Your task to perform on an android device: Open my contact list Image 0: 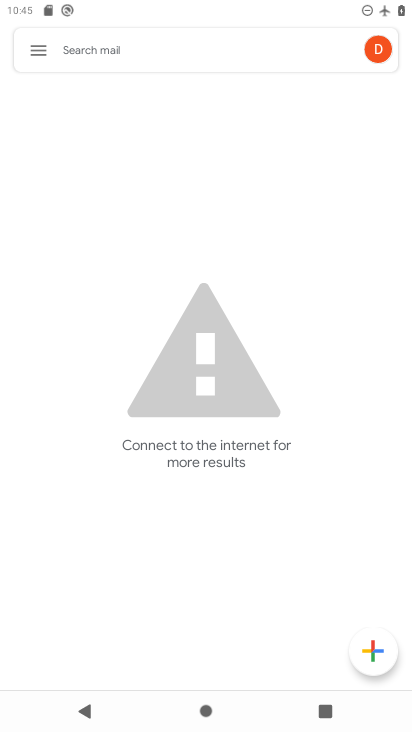
Step 0: press home button
Your task to perform on an android device: Open my contact list Image 1: 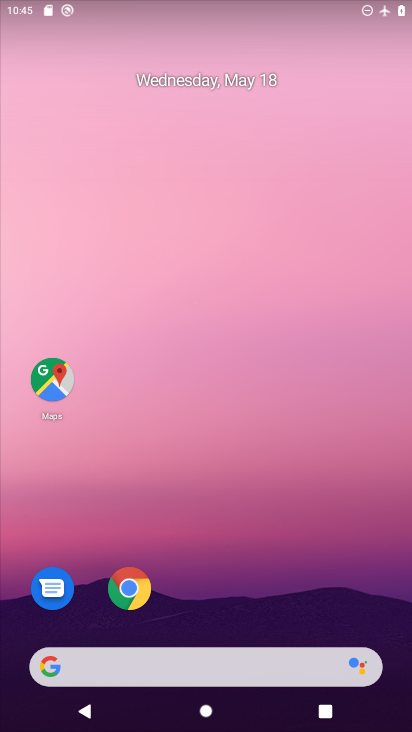
Step 1: drag from (340, 593) to (277, 13)
Your task to perform on an android device: Open my contact list Image 2: 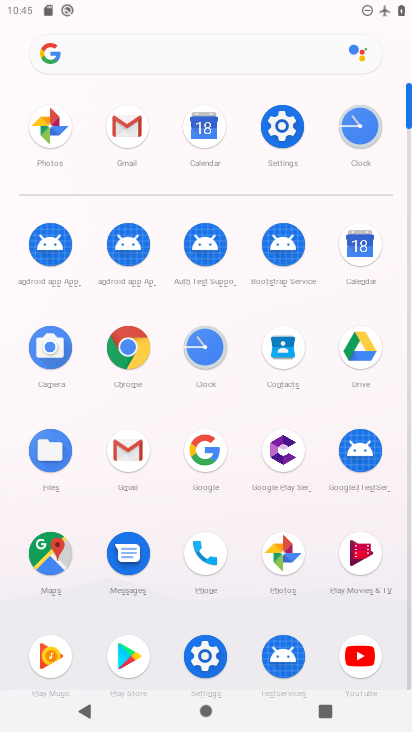
Step 2: click (273, 355)
Your task to perform on an android device: Open my contact list Image 3: 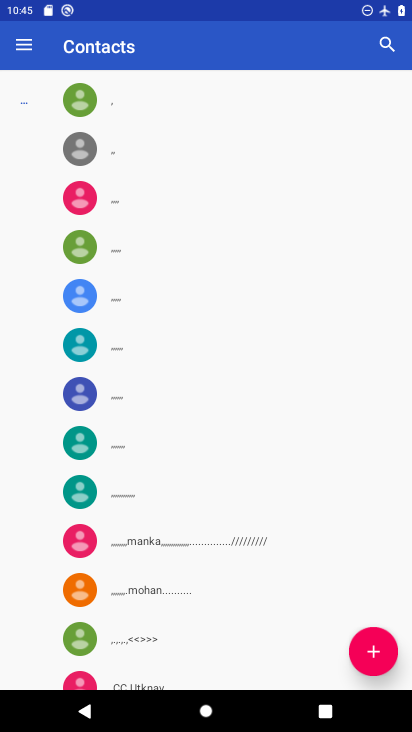
Step 3: task complete